Your task to perform on an android device: turn on notifications settings in the gmail app Image 0: 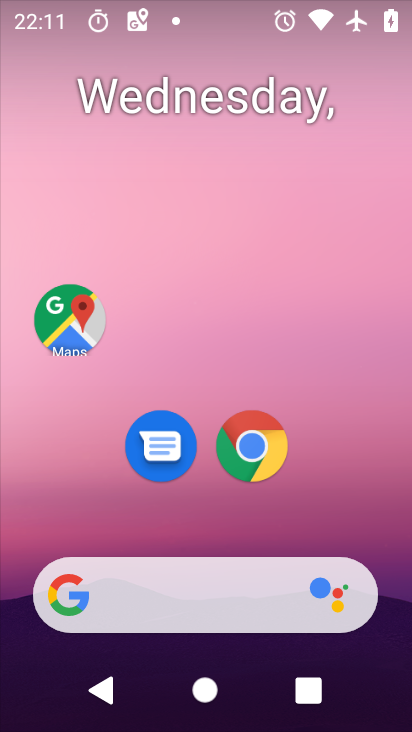
Step 0: press home button
Your task to perform on an android device: turn on notifications settings in the gmail app Image 1: 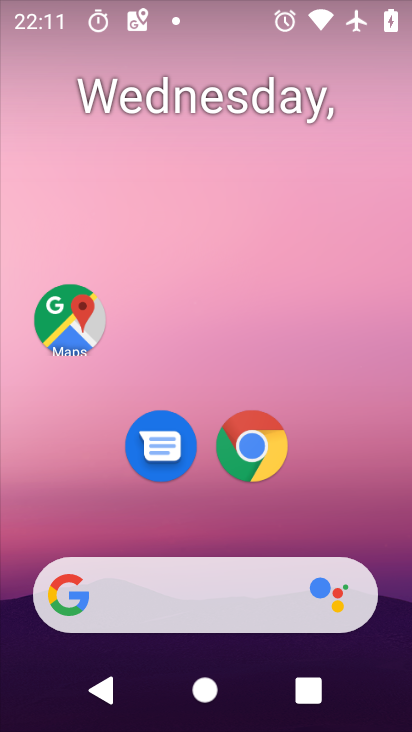
Step 1: drag from (194, 592) to (279, 136)
Your task to perform on an android device: turn on notifications settings in the gmail app Image 2: 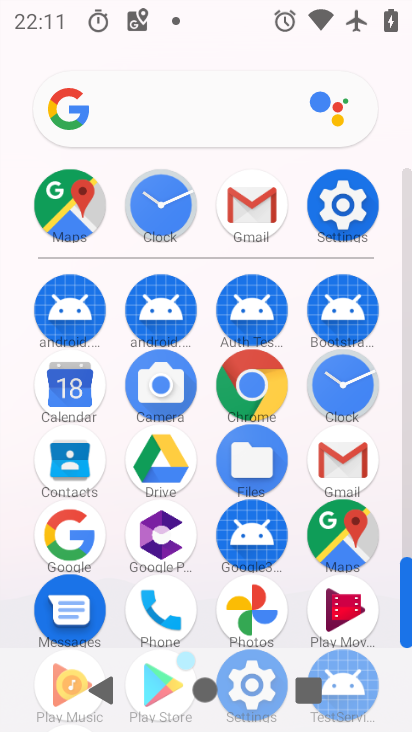
Step 2: click (249, 205)
Your task to perform on an android device: turn on notifications settings in the gmail app Image 3: 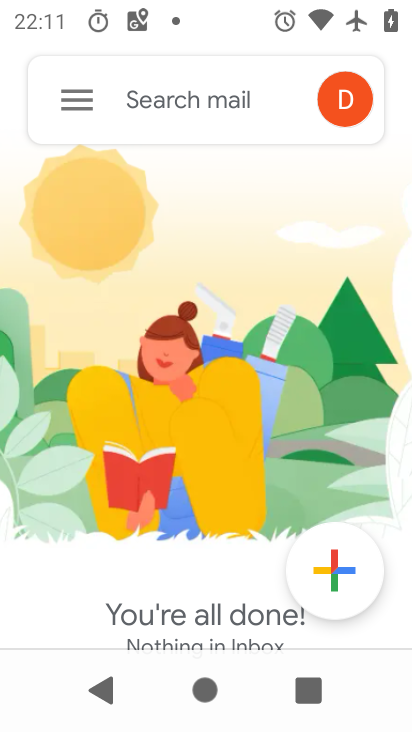
Step 3: click (81, 94)
Your task to perform on an android device: turn on notifications settings in the gmail app Image 4: 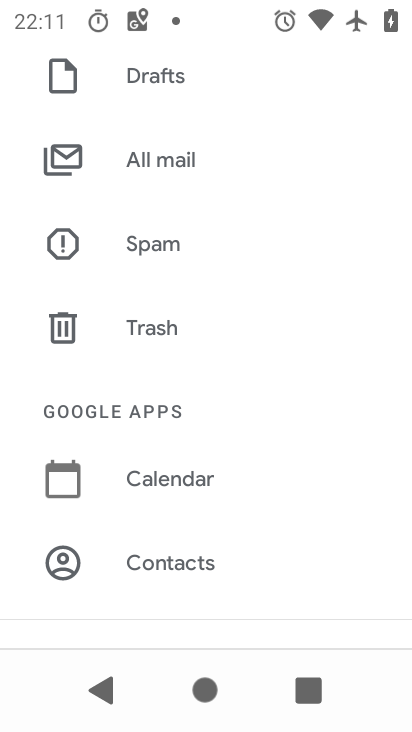
Step 4: drag from (255, 574) to (336, 188)
Your task to perform on an android device: turn on notifications settings in the gmail app Image 5: 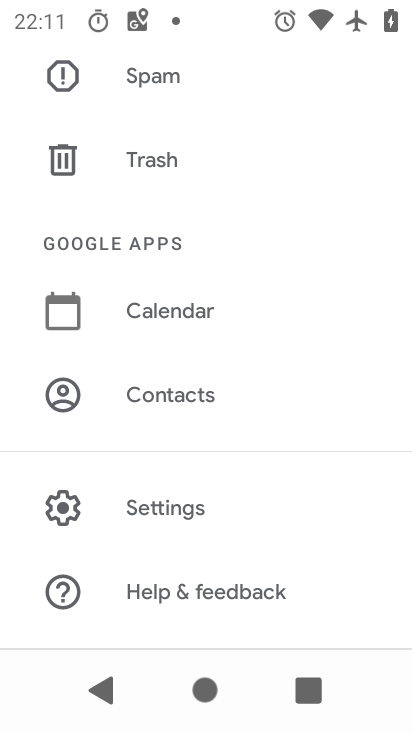
Step 5: click (159, 519)
Your task to perform on an android device: turn on notifications settings in the gmail app Image 6: 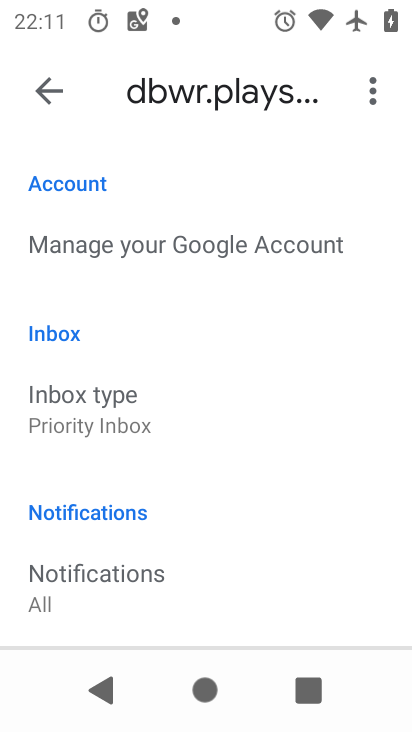
Step 6: drag from (237, 552) to (297, 212)
Your task to perform on an android device: turn on notifications settings in the gmail app Image 7: 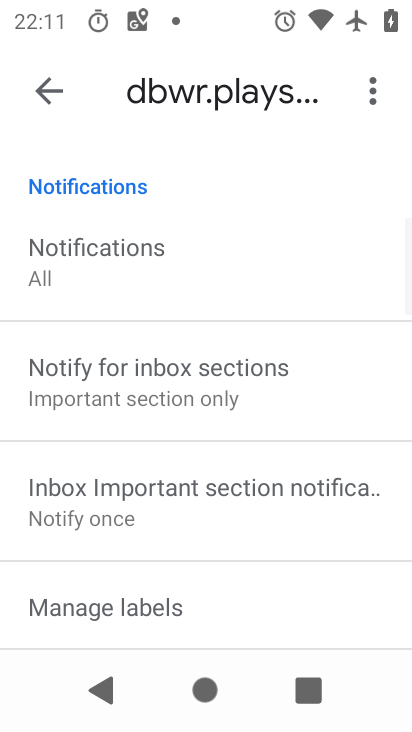
Step 7: click (85, 258)
Your task to perform on an android device: turn on notifications settings in the gmail app Image 8: 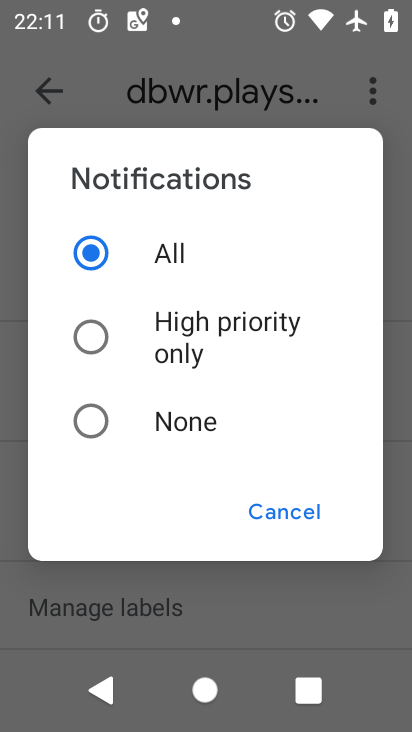
Step 8: task complete